Your task to perform on an android device: What's the weather? Image 0: 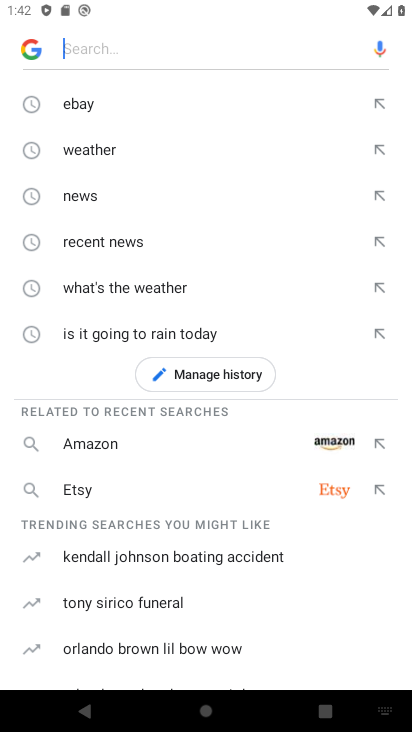
Step 0: click (105, 289)
Your task to perform on an android device: What's the weather? Image 1: 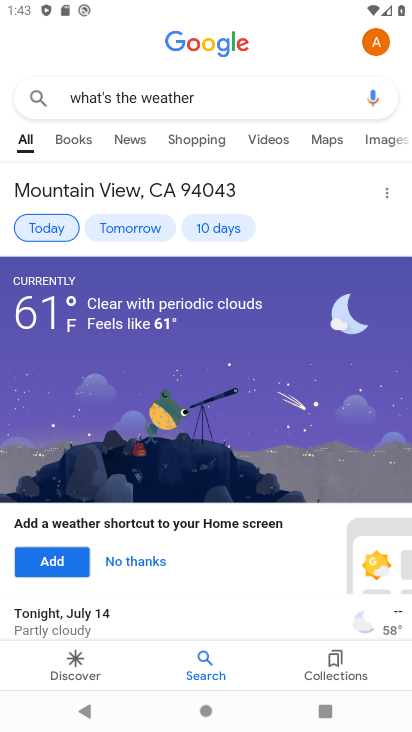
Step 1: task complete